Your task to perform on an android device: star an email in the gmail app Image 0: 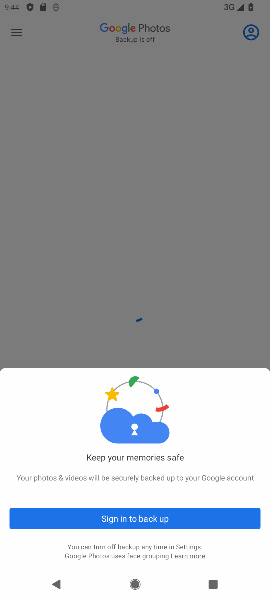
Step 0: press home button
Your task to perform on an android device: star an email in the gmail app Image 1: 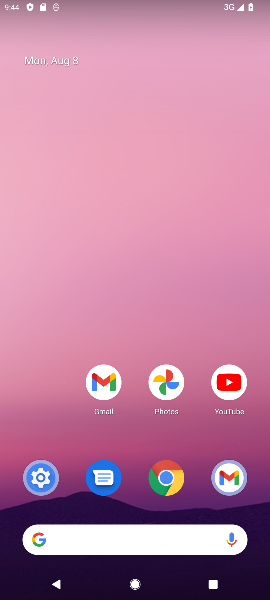
Step 1: drag from (134, 428) to (135, 64)
Your task to perform on an android device: star an email in the gmail app Image 2: 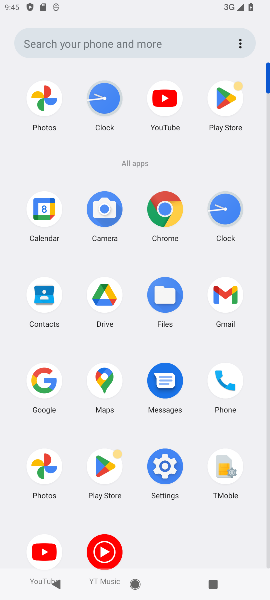
Step 2: click (233, 302)
Your task to perform on an android device: star an email in the gmail app Image 3: 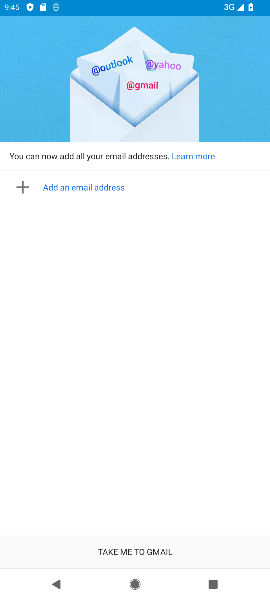
Step 3: click (150, 554)
Your task to perform on an android device: star an email in the gmail app Image 4: 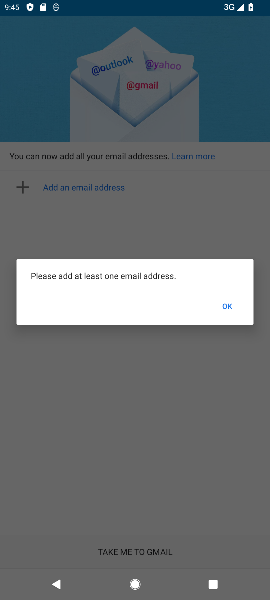
Step 4: task complete